Your task to perform on an android device: toggle location history Image 0: 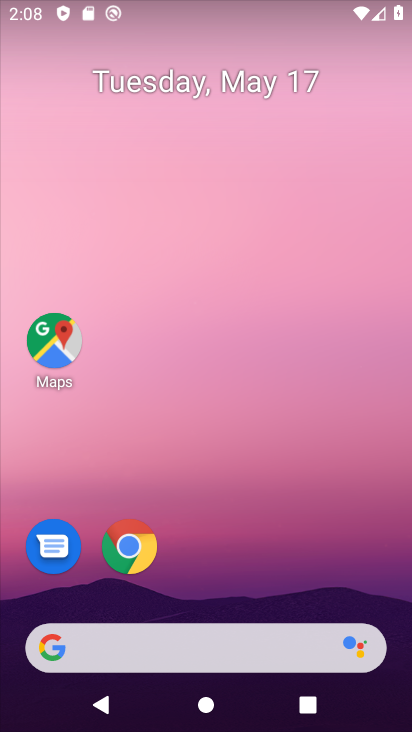
Step 0: drag from (244, 528) to (211, 188)
Your task to perform on an android device: toggle location history Image 1: 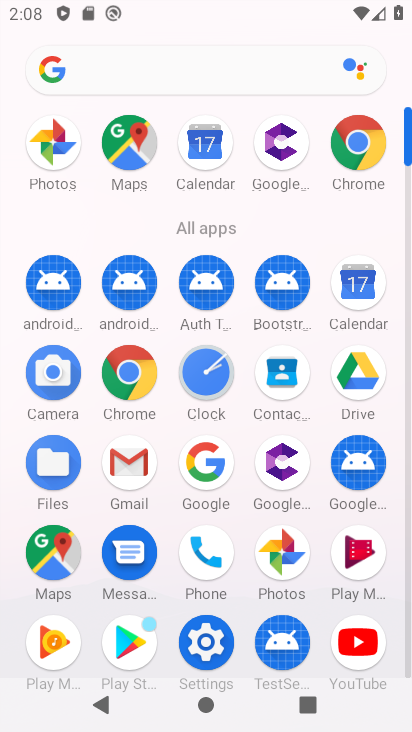
Step 1: drag from (269, 478) to (271, 315)
Your task to perform on an android device: toggle location history Image 2: 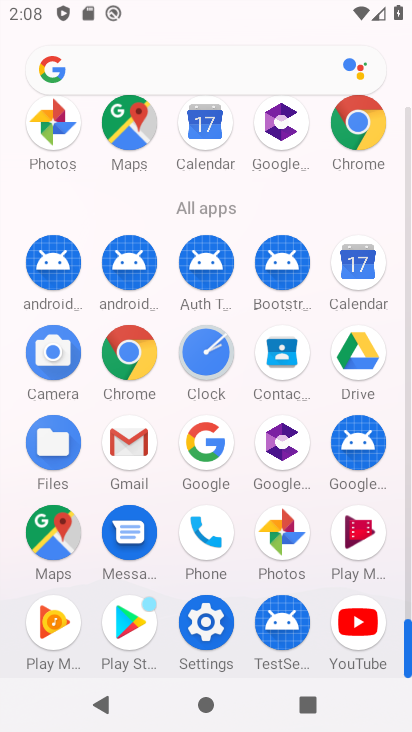
Step 2: click (204, 645)
Your task to perform on an android device: toggle location history Image 3: 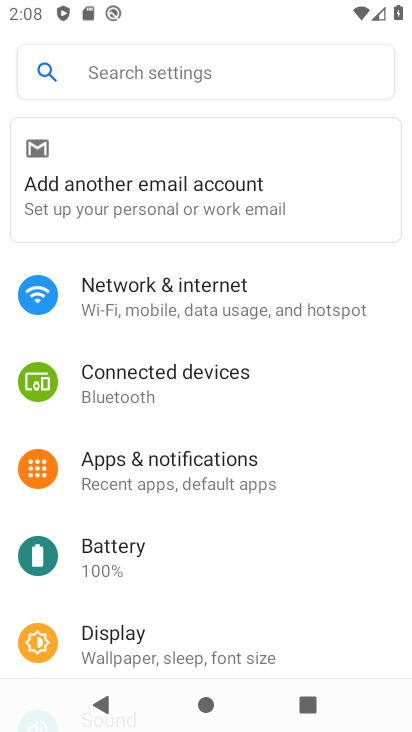
Step 3: drag from (204, 645) to (202, 510)
Your task to perform on an android device: toggle location history Image 4: 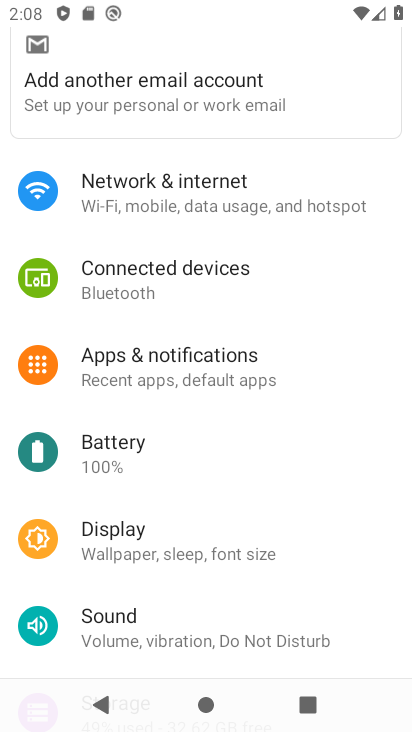
Step 4: drag from (194, 578) to (200, 362)
Your task to perform on an android device: toggle location history Image 5: 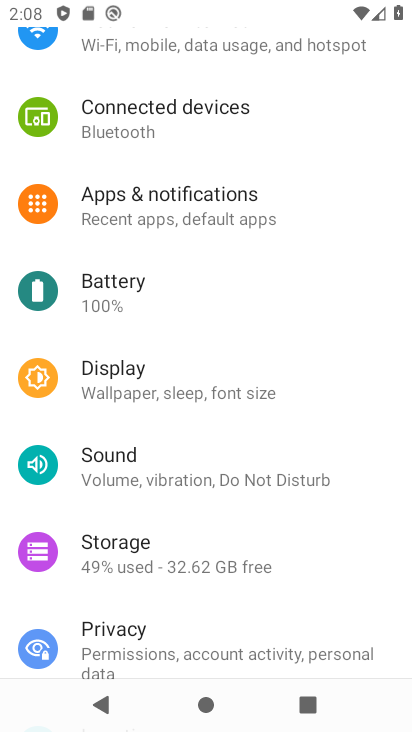
Step 5: drag from (208, 565) to (195, 386)
Your task to perform on an android device: toggle location history Image 6: 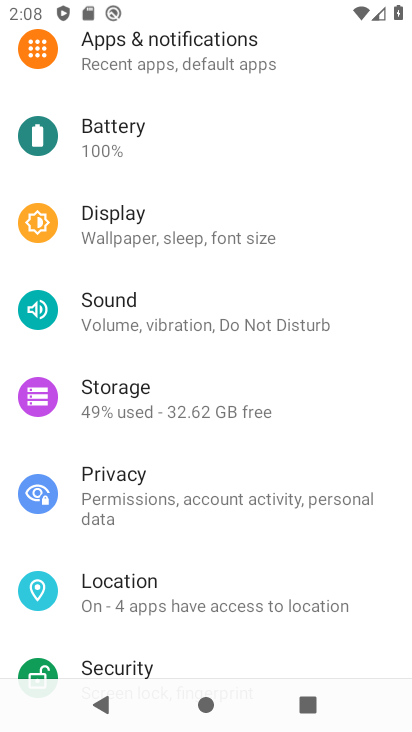
Step 6: click (192, 604)
Your task to perform on an android device: toggle location history Image 7: 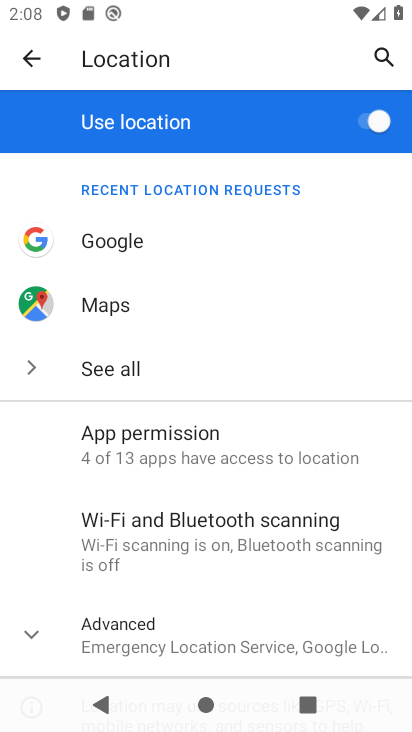
Step 7: click (209, 640)
Your task to perform on an android device: toggle location history Image 8: 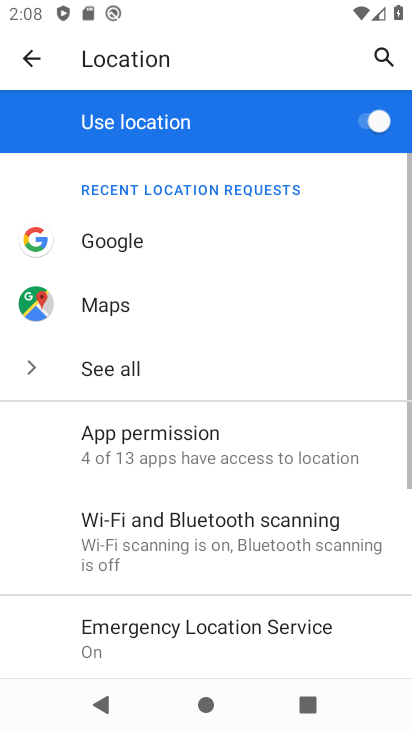
Step 8: drag from (209, 640) to (198, 499)
Your task to perform on an android device: toggle location history Image 9: 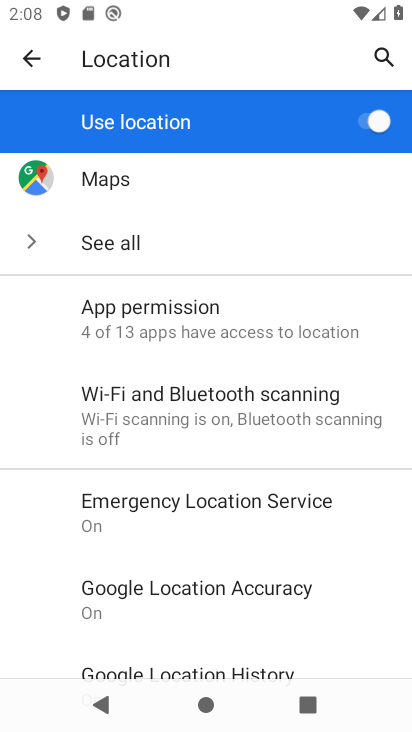
Step 9: drag from (233, 605) to (220, 459)
Your task to perform on an android device: toggle location history Image 10: 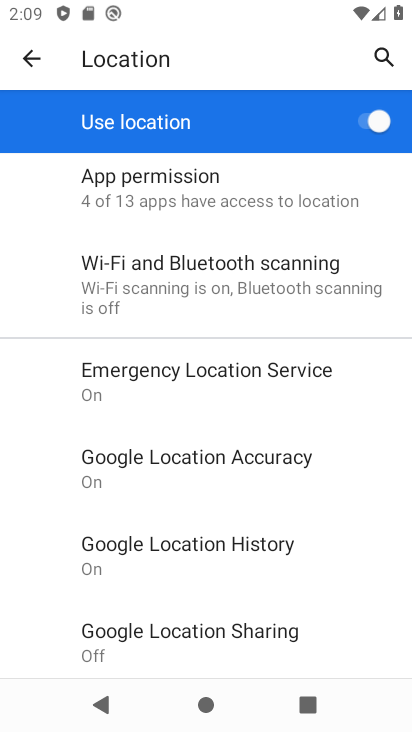
Step 10: click (238, 550)
Your task to perform on an android device: toggle location history Image 11: 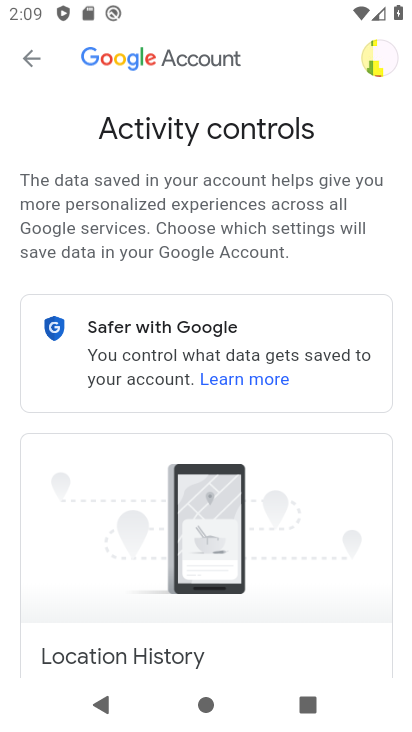
Step 11: drag from (327, 538) to (253, 213)
Your task to perform on an android device: toggle location history Image 12: 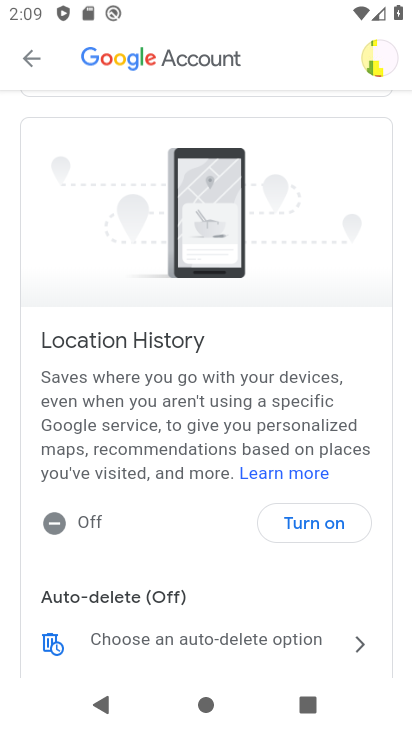
Step 12: click (314, 528)
Your task to perform on an android device: toggle location history Image 13: 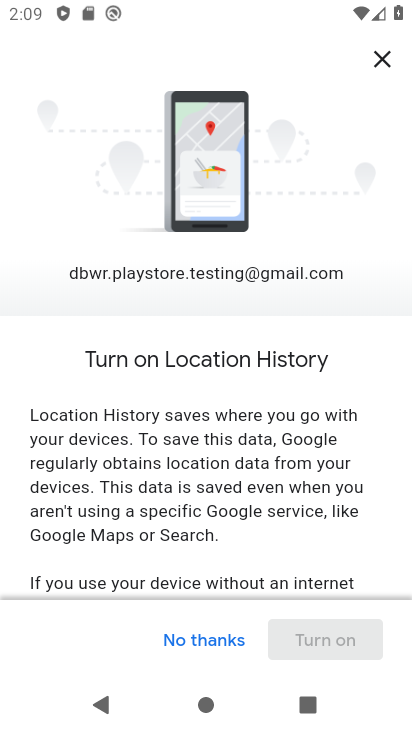
Step 13: drag from (318, 538) to (313, 115)
Your task to perform on an android device: toggle location history Image 14: 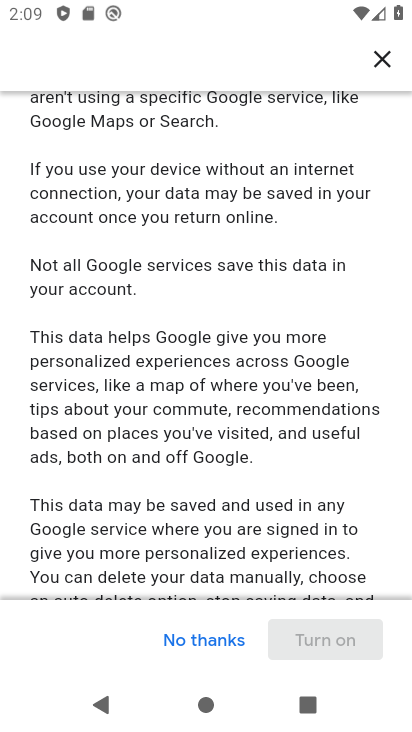
Step 14: drag from (273, 467) to (267, 25)
Your task to perform on an android device: toggle location history Image 15: 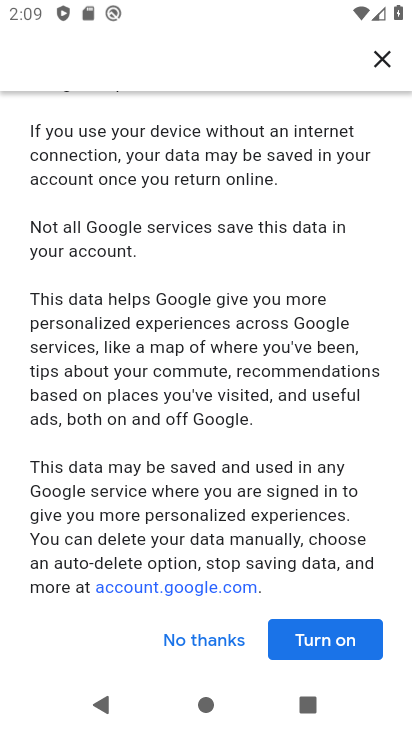
Step 15: click (322, 647)
Your task to perform on an android device: toggle location history Image 16: 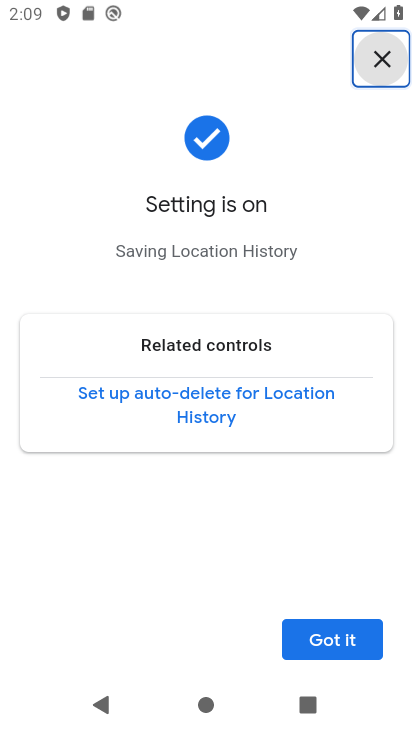
Step 16: click (322, 647)
Your task to perform on an android device: toggle location history Image 17: 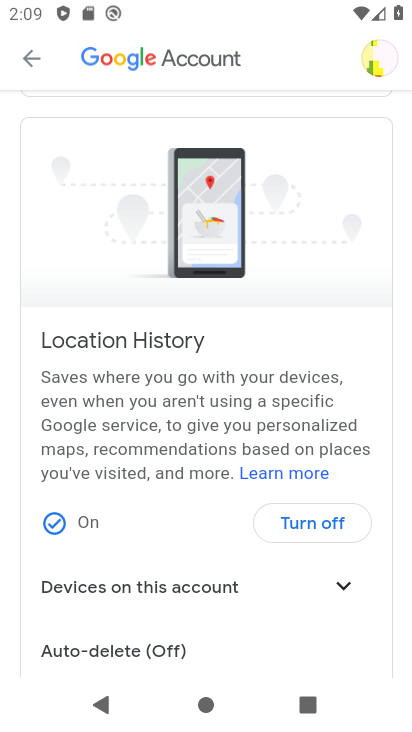
Step 17: task complete